Your task to perform on an android device: change the upload size in google photos Image 0: 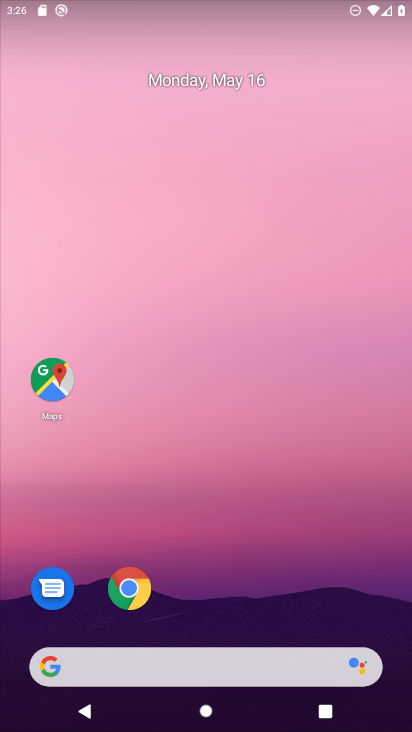
Step 0: drag from (345, 620) to (355, 0)
Your task to perform on an android device: change the upload size in google photos Image 1: 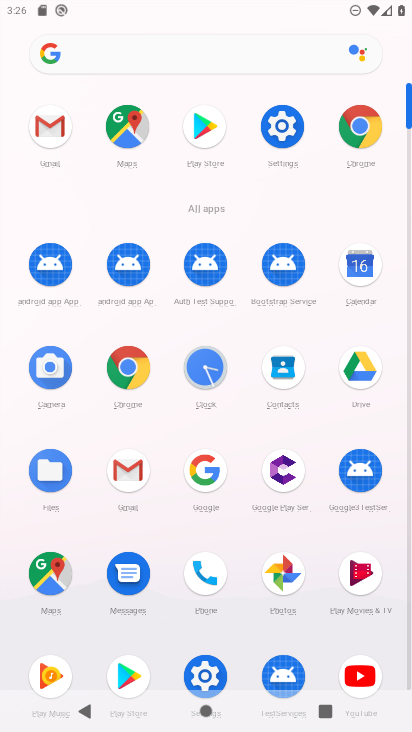
Step 1: click (288, 570)
Your task to perform on an android device: change the upload size in google photos Image 2: 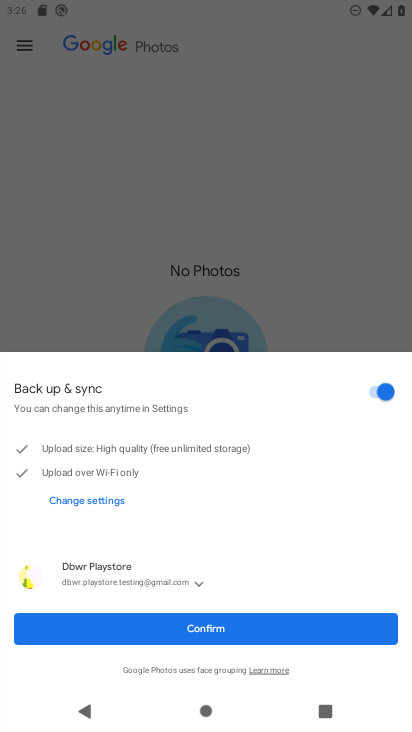
Step 2: click (176, 636)
Your task to perform on an android device: change the upload size in google photos Image 3: 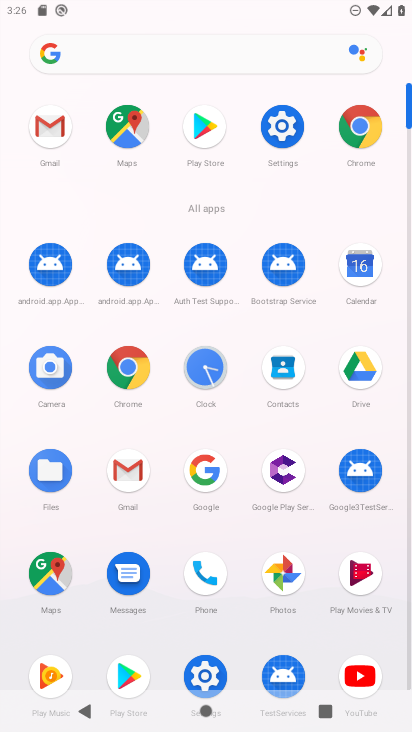
Step 3: click (281, 570)
Your task to perform on an android device: change the upload size in google photos Image 4: 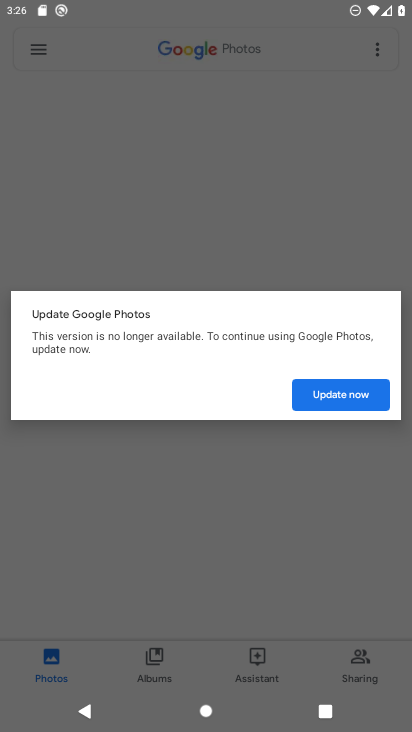
Step 4: click (310, 396)
Your task to perform on an android device: change the upload size in google photos Image 5: 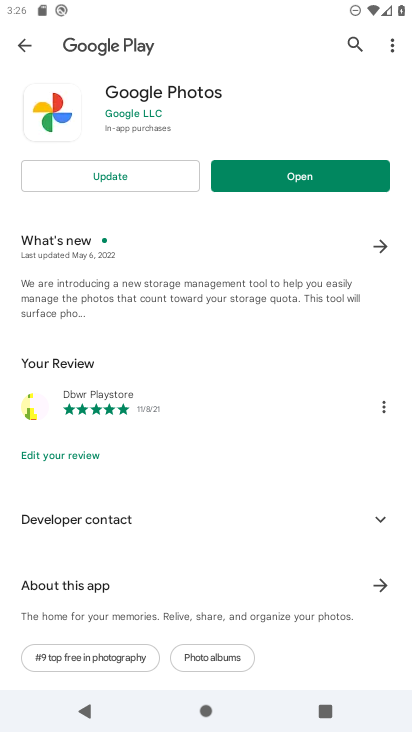
Step 5: click (265, 178)
Your task to perform on an android device: change the upload size in google photos Image 6: 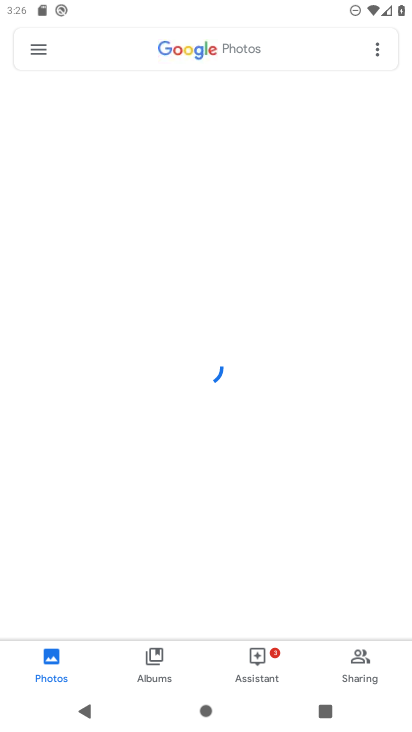
Step 6: click (33, 52)
Your task to perform on an android device: change the upload size in google photos Image 7: 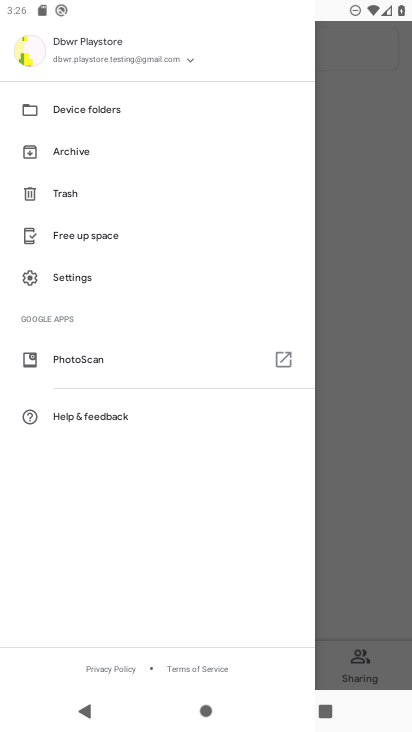
Step 7: click (63, 278)
Your task to perform on an android device: change the upload size in google photos Image 8: 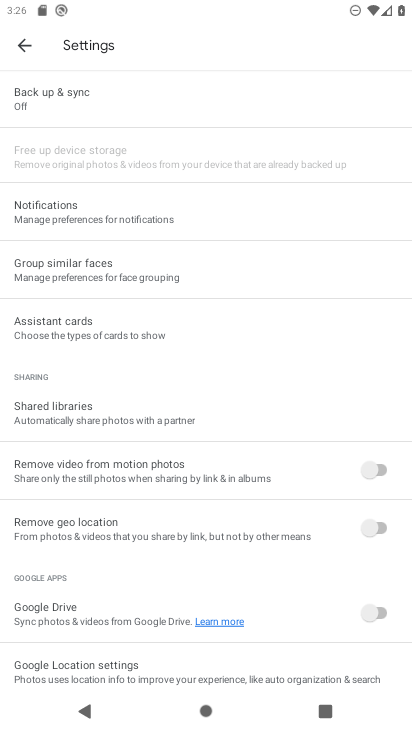
Step 8: click (65, 97)
Your task to perform on an android device: change the upload size in google photos Image 9: 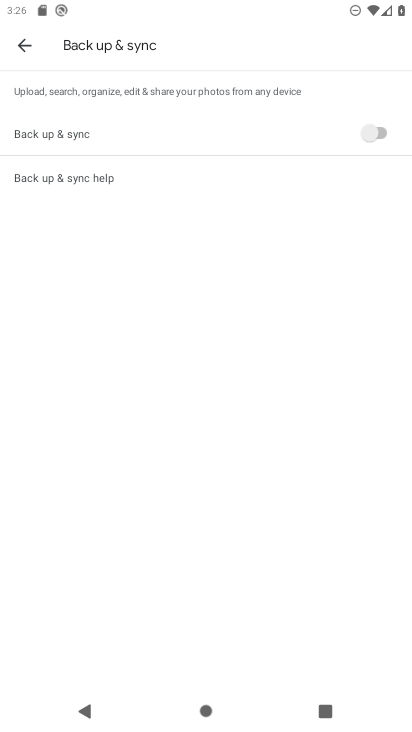
Step 9: click (359, 131)
Your task to perform on an android device: change the upload size in google photos Image 10: 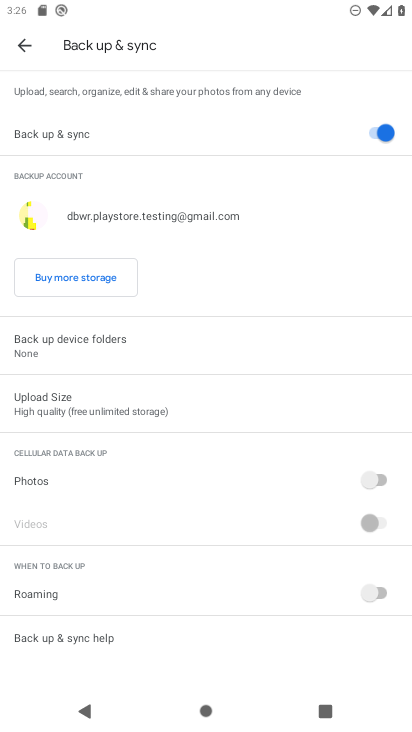
Step 10: click (49, 409)
Your task to perform on an android device: change the upload size in google photos Image 11: 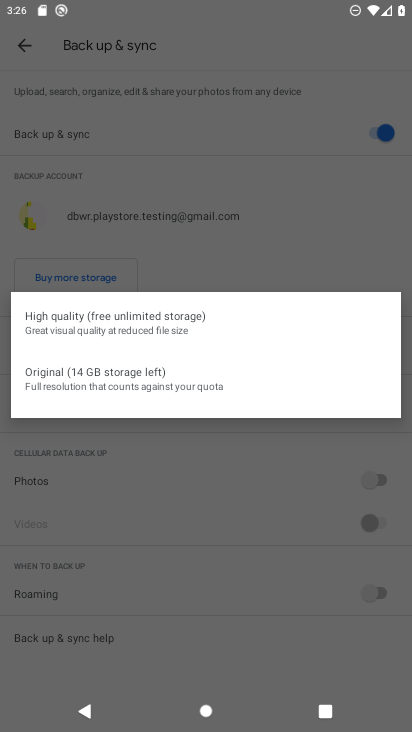
Step 11: click (57, 390)
Your task to perform on an android device: change the upload size in google photos Image 12: 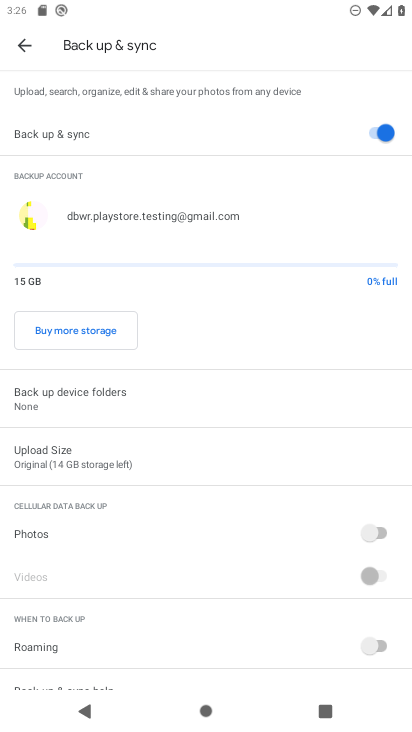
Step 12: task complete